Your task to perform on an android device: turn off location Image 0: 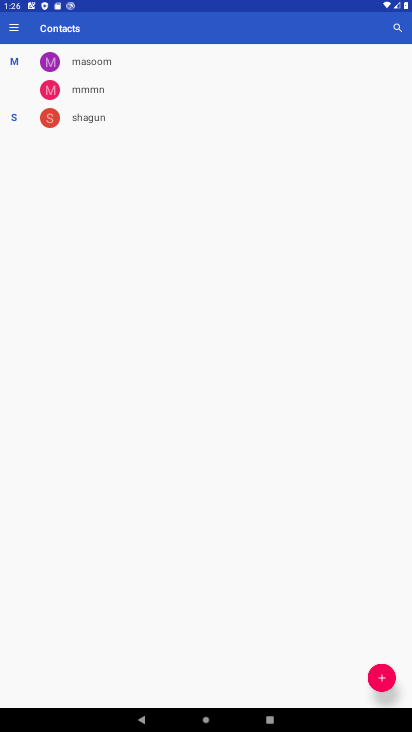
Step 0: press home button
Your task to perform on an android device: turn off location Image 1: 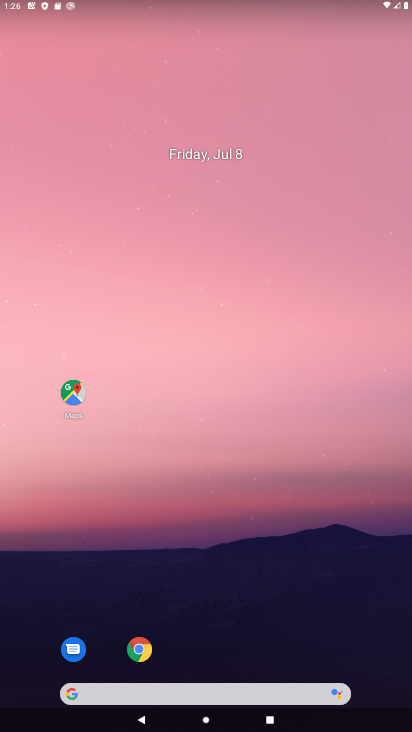
Step 1: click (76, 395)
Your task to perform on an android device: turn off location Image 2: 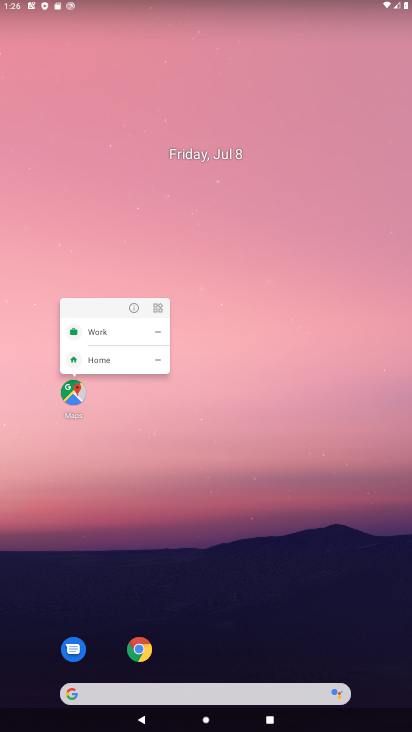
Step 2: click (76, 399)
Your task to perform on an android device: turn off location Image 3: 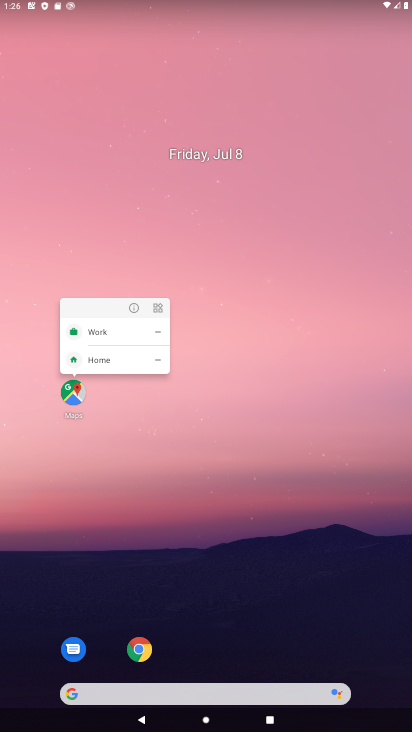
Step 3: click (73, 389)
Your task to perform on an android device: turn off location Image 4: 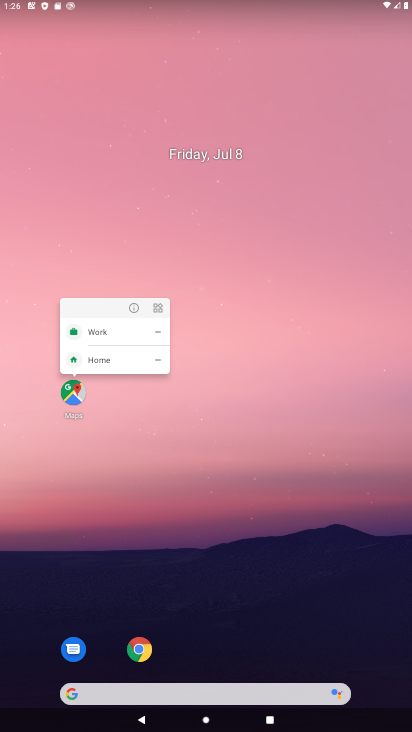
Step 4: click (65, 390)
Your task to perform on an android device: turn off location Image 5: 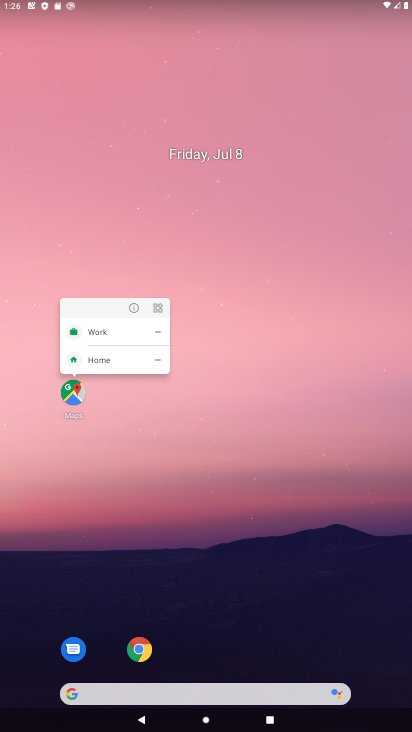
Step 5: click (65, 394)
Your task to perform on an android device: turn off location Image 6: 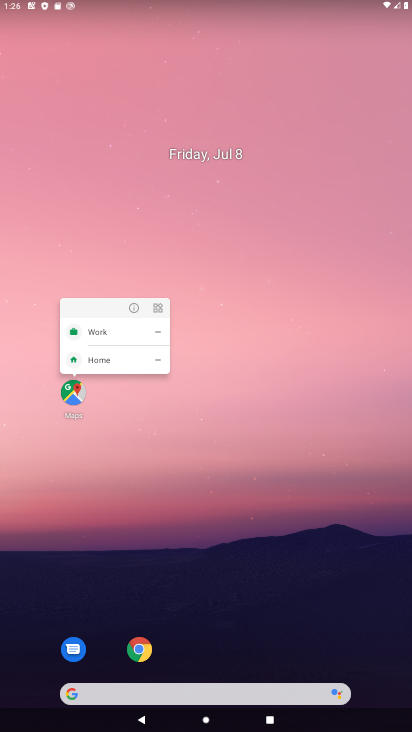
Step 6: click (65, 402)
Your task to perform on an android device: turn off location Image 7: 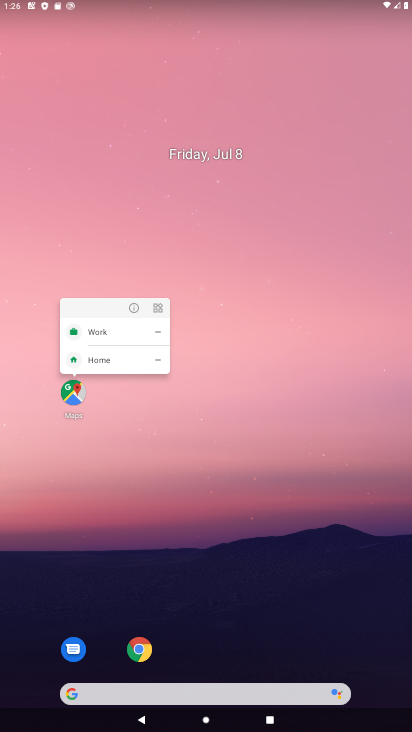
Step 7: task complete